Your task to perform on an android device: turn on priority inbox in the gmail app Image 0: 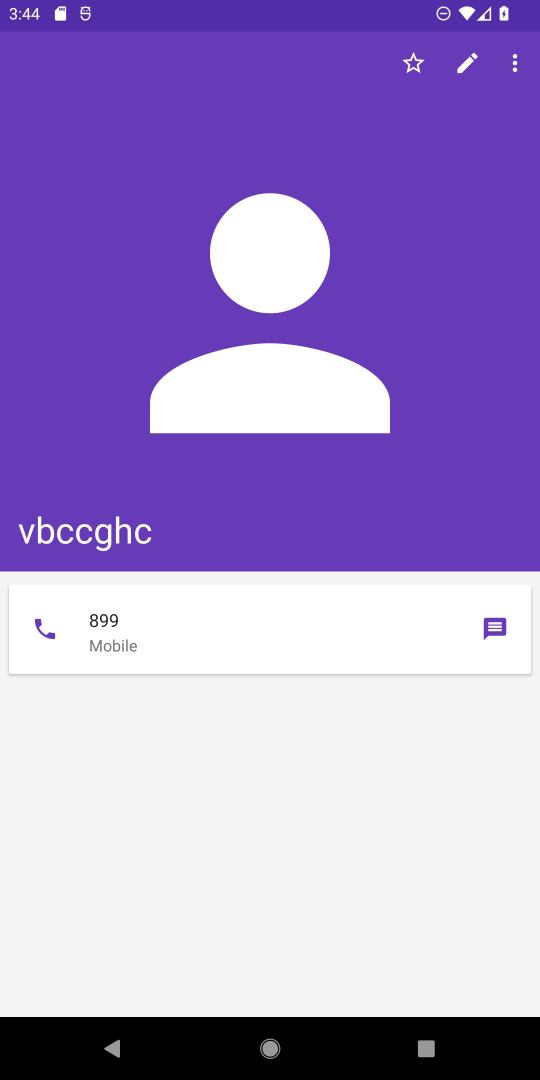
Step 0: press home button
Your task to perform on an android device: turn on priority inbox in the gmail app Image 1: 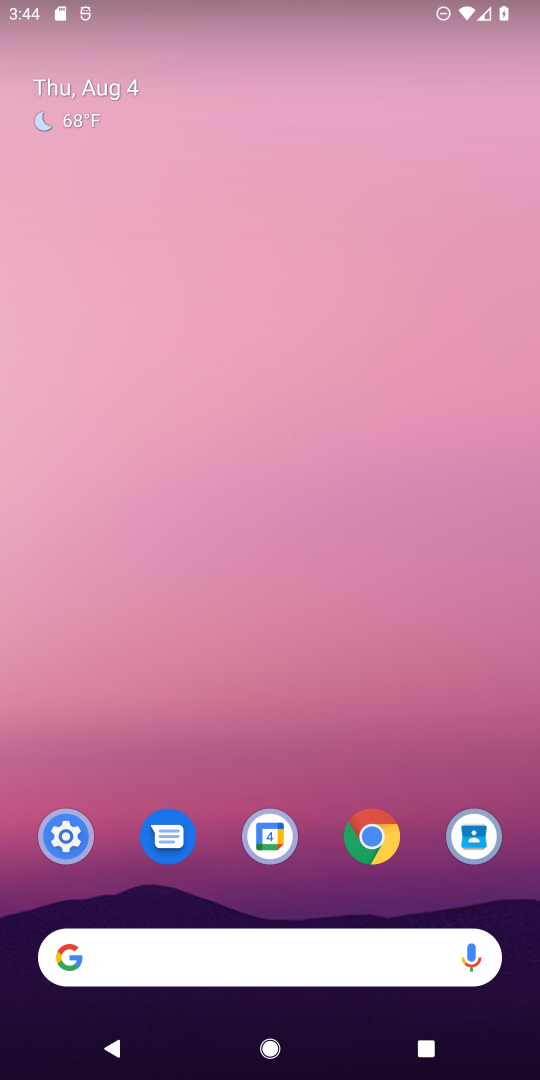
Step 1: drag from (201, 1011) to (393, 68)
Your task to perform on an android device: turn on priority inbox in the gmail app Image 2: 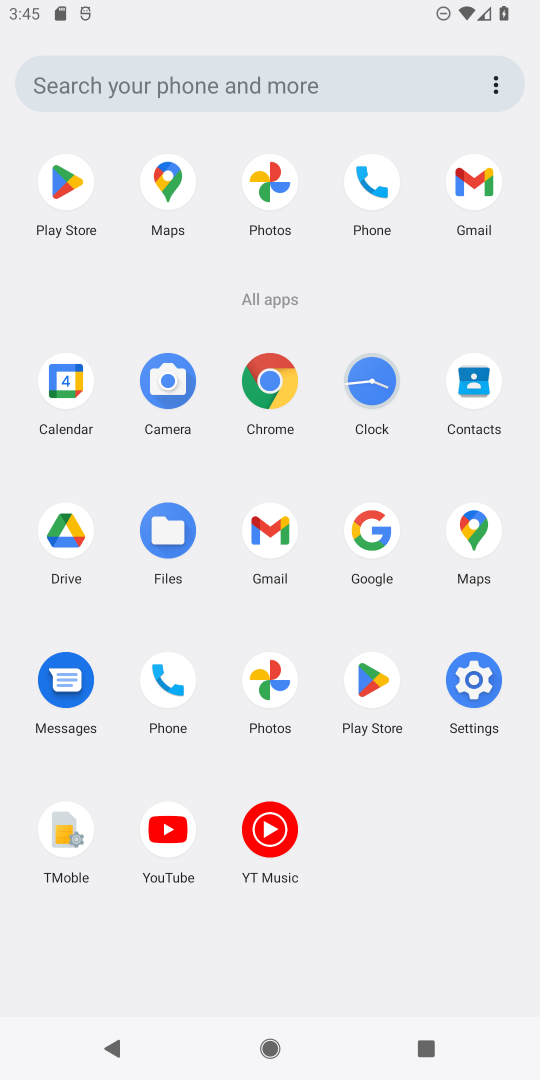
Step 2: click (476, 201)
Your task to perform on an android device: turn on priority inbox in the gmail app Image 3: 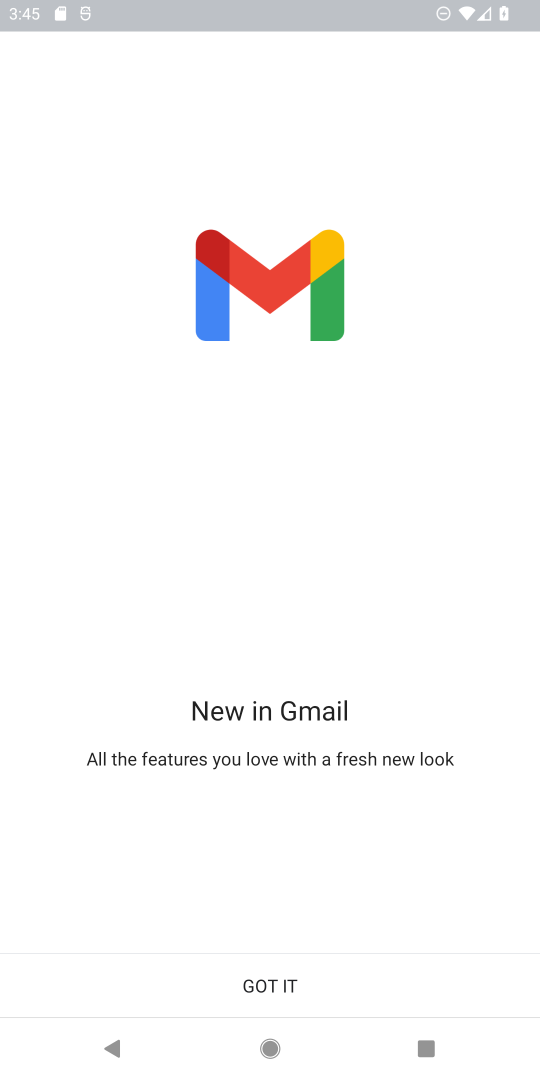
Step 3: click (287, 973)
Your task to perform on an android device: turn on priority inbox in the gmail app Image 4: 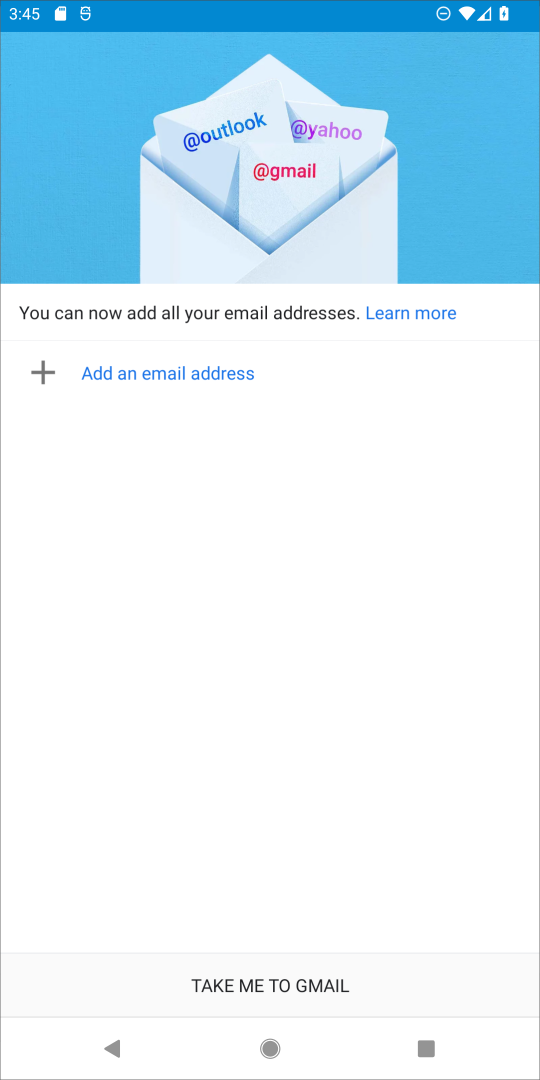
Step 4: click (287, 973)
Your task to perform on an android device: turn on priority inbox in the gmail app Image 5: 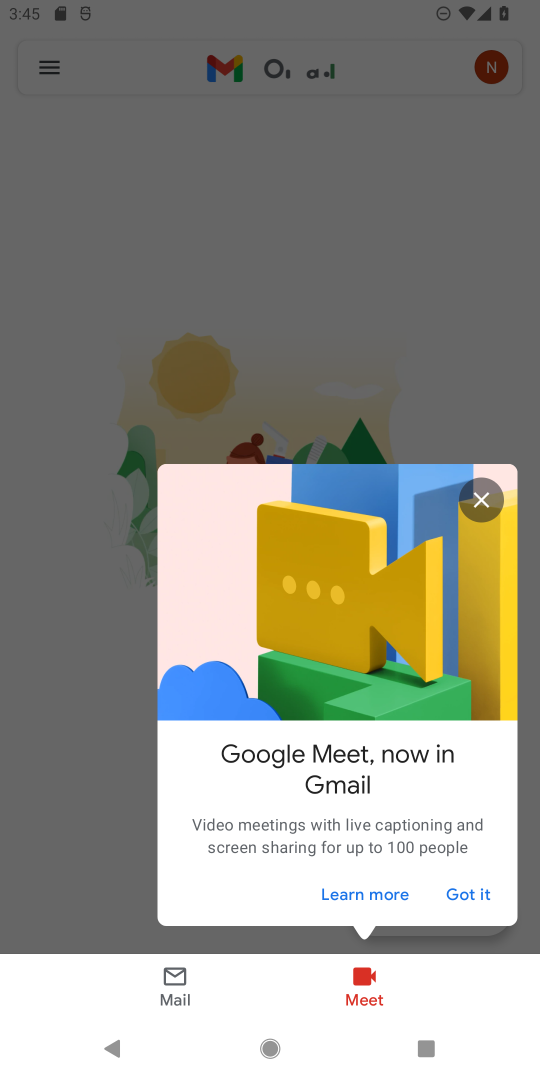
Step 5: click (343, 267)
Your task to perform on an android device: turn on priority inbox in the gmail app Image 6: 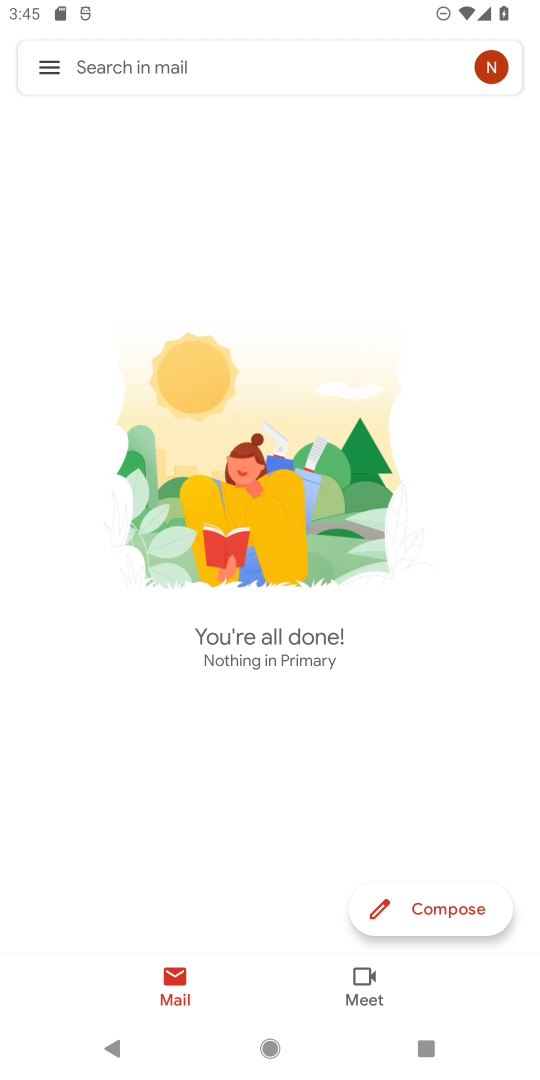
Step 6: click (53, 84)
Your task to perform on an android device: turn on priority inbox in the gmail app Image 7: 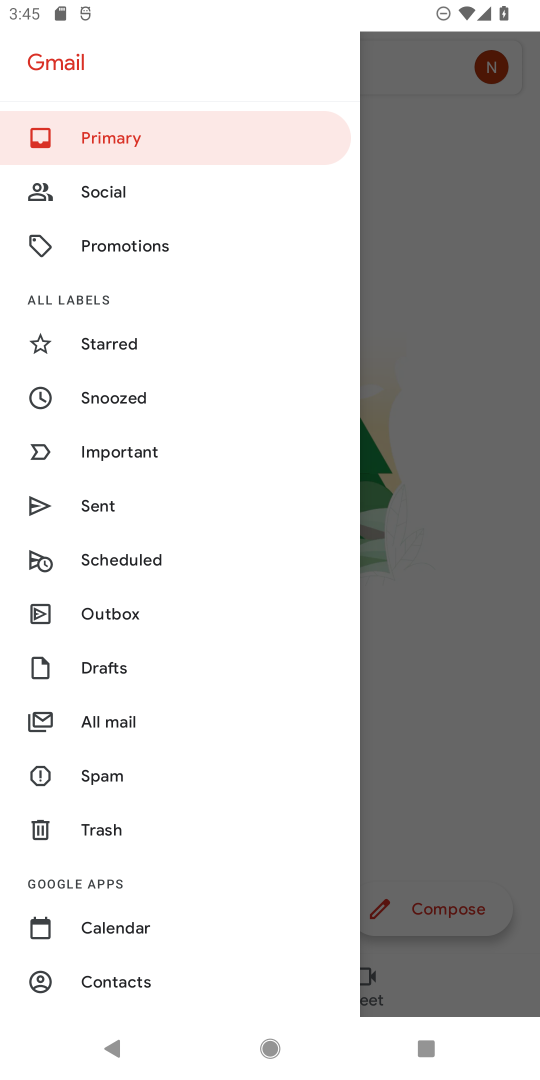
Step 7: drag from (183, 831) to (373, 93)
Your task to perform on an android device: turn on priority inbox in the gmail app Image 8: 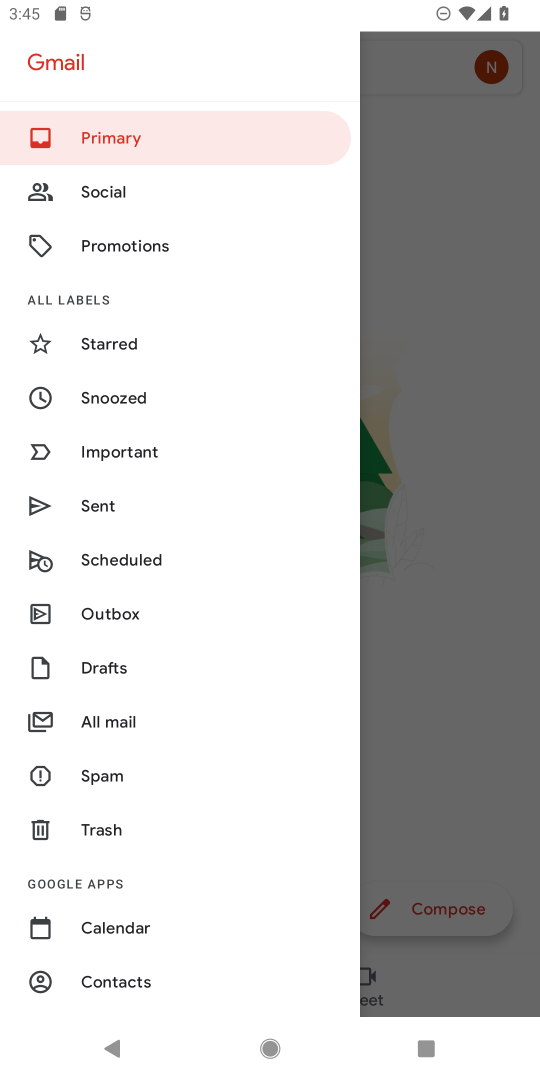
Step 8: drag from (151, 955) to (517, 297)
Your task to perform on an android device: turn on priority inbox in the gmail app Image 9: 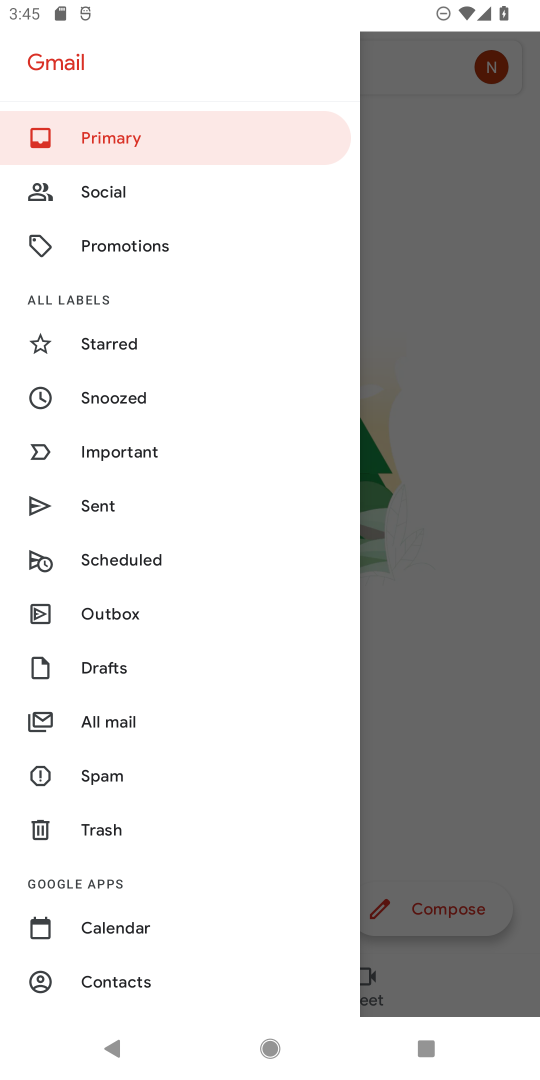
Step 9: drag from (117, 954) to (246, 11)
Your task to perform on an android device: turn on priority inbox in the gmail app Image 10: 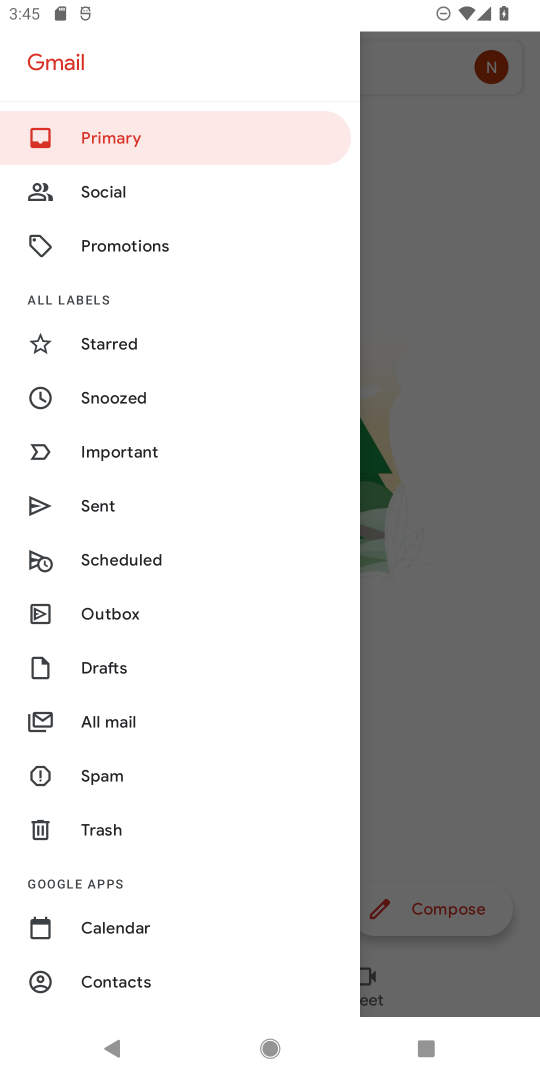
Step 10: drag from (86, 989) to (88, 11)
Your task to perform on an android device: turn on priority inbox in the gmail app Image 11: 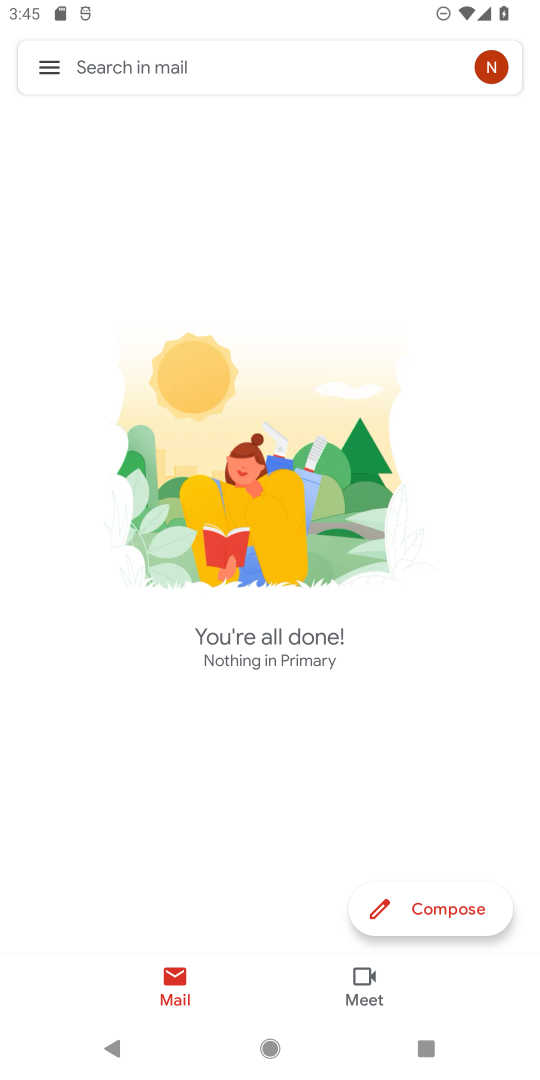
Step 11: click (30, 64)
Your task to perform on an android device: turn on priority inbox in the gmail app Image 12: 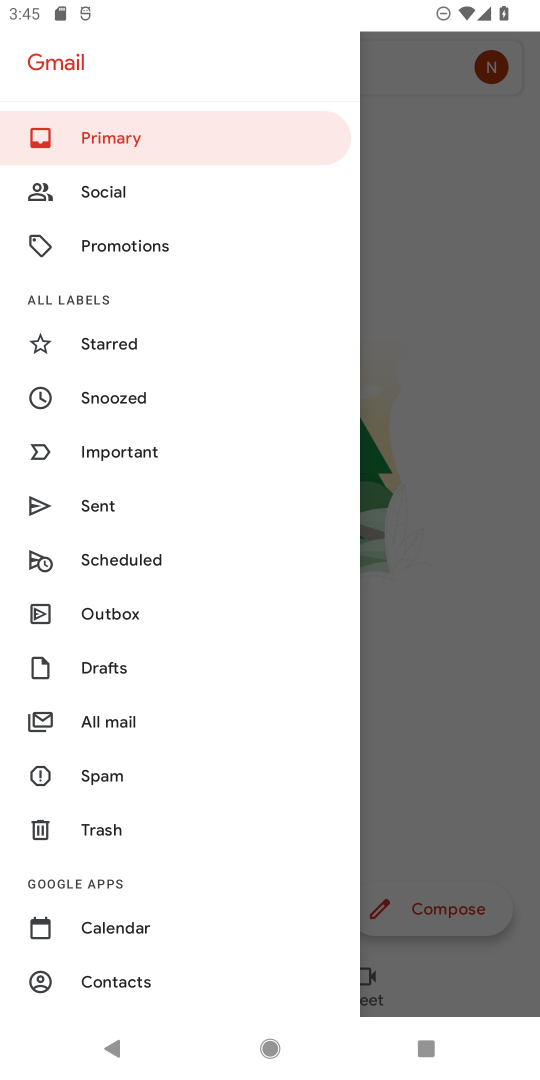
Step 12: drag from (242, 935) to (299, 0)
Your task to perform on an android device: turn on priority inbox in the gmail app Image 13: 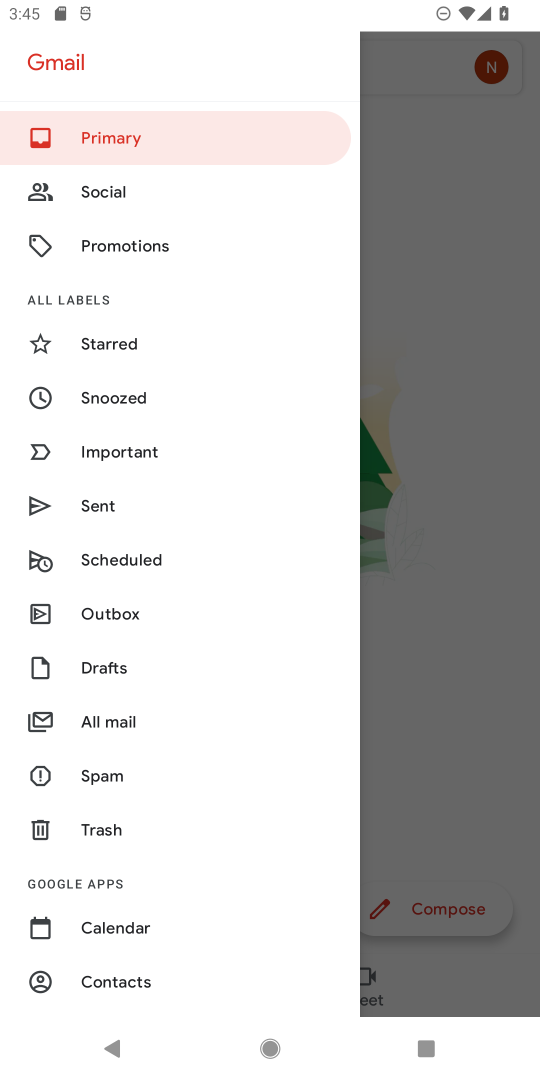
Step 13: drag from (174, 924) to (24, 34)
Your task to perform on an android device: turn on priority inbox in the gmail app Image 14: 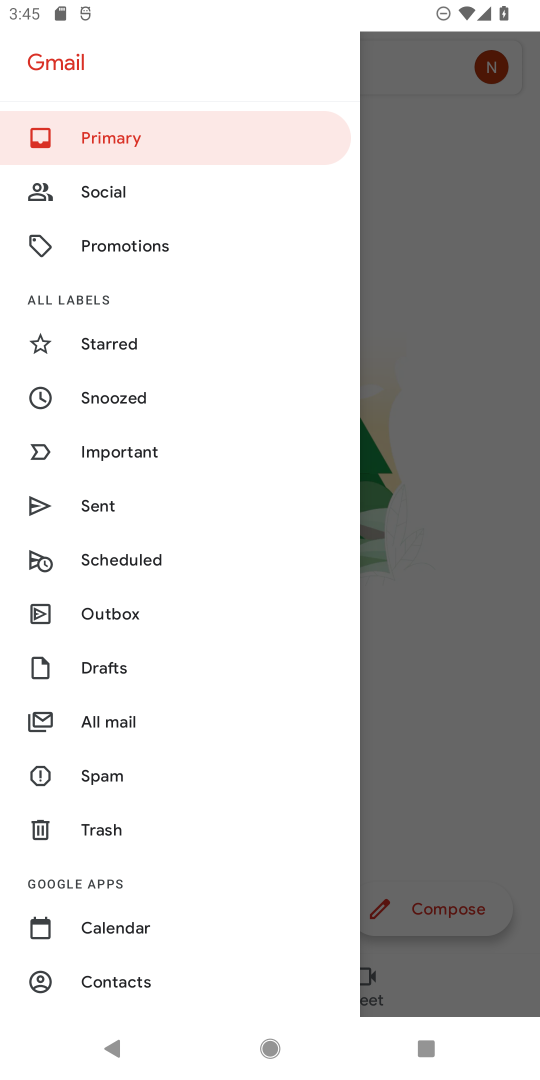
Step 14: drag from (167, 895) to (190, 36)
Your task to perform on an android device: turn on priority inbox in the gmail app Image 15: 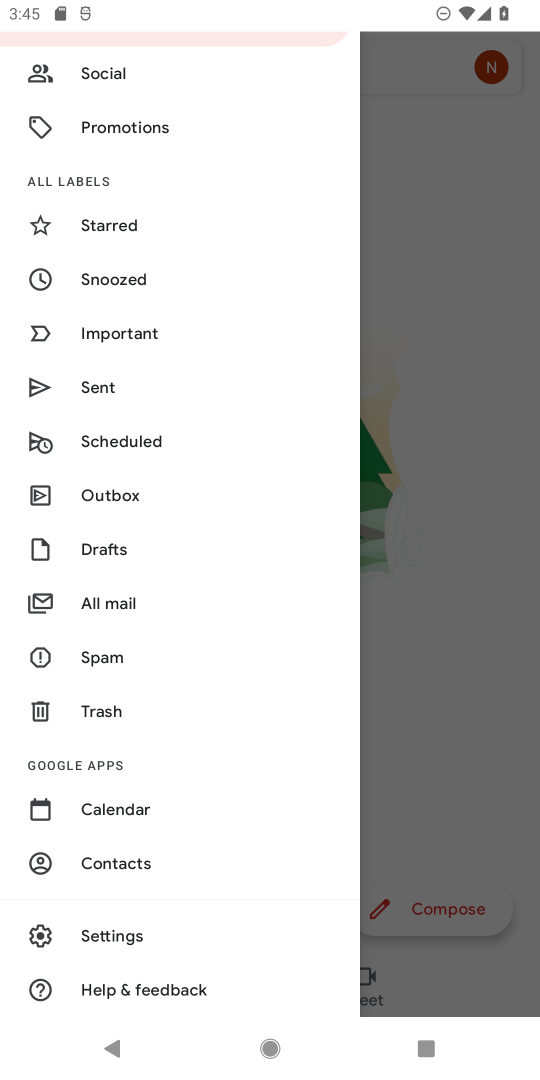
Step 15: drag from (97, 970) to (325, 17)
Your task to perform on an android device: turn on priority inbox in the gmail app Image 16: 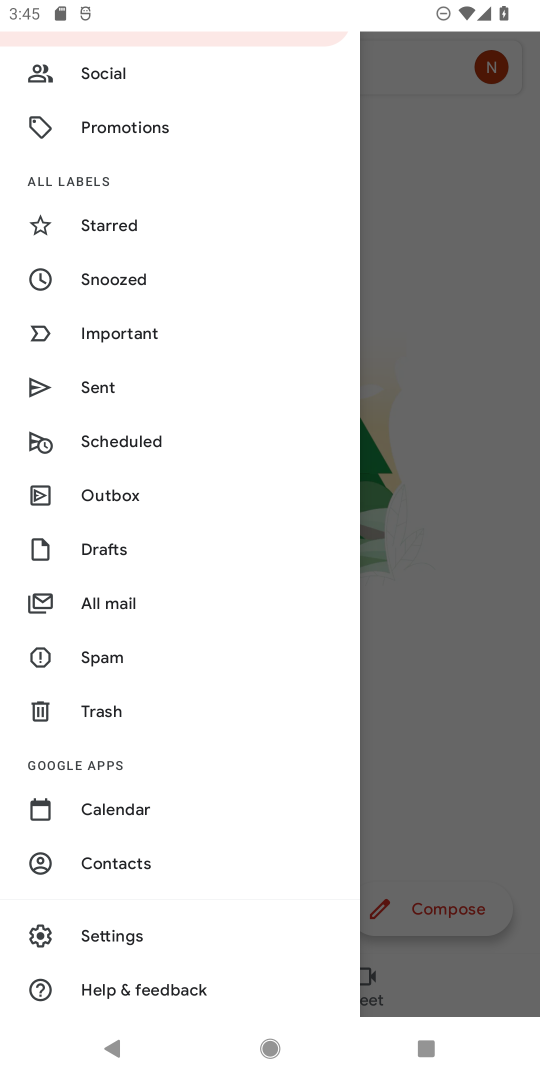
Step 16: click (105, 933)
Your task to perform on an android device: turn on priority inbox in the gmail app Image 17: 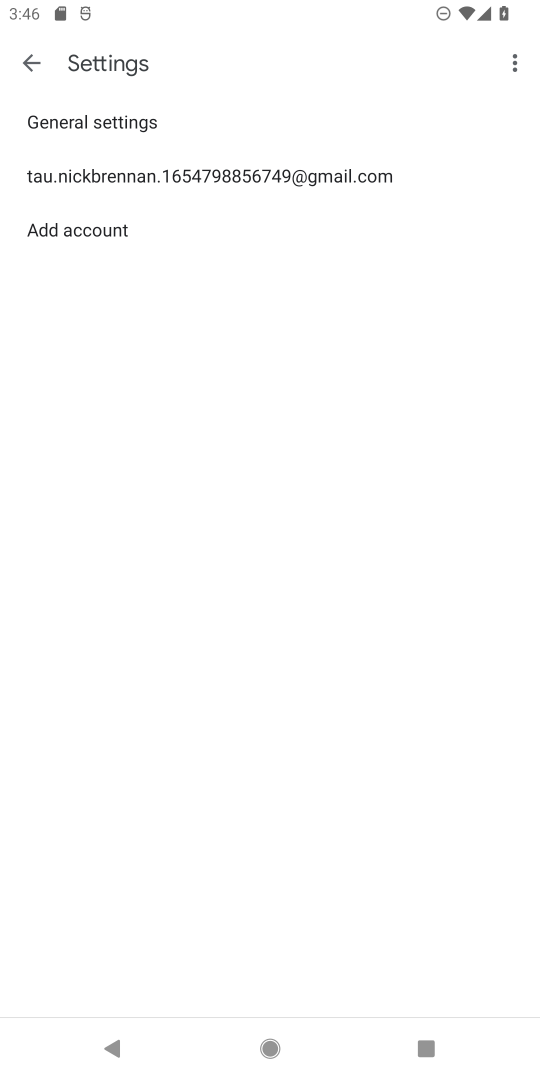
Step 17: click (300, 166)
Your task to perform on an android device: turn on priority inbox in the gmail app Image 18: 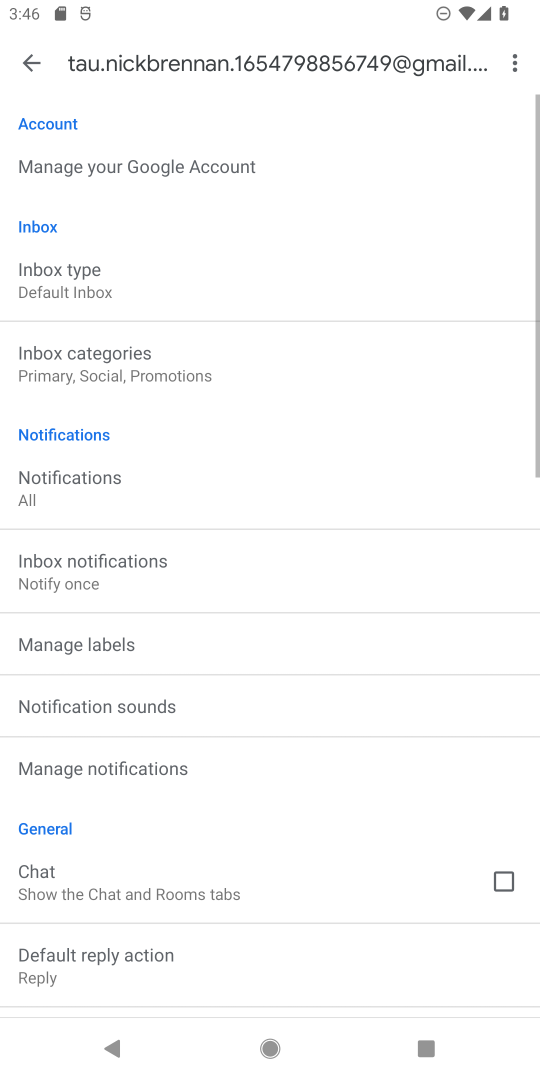
Step 18: click (59, 273)
Your task to perform on an android device: turn on priority inbox in the gmail app Image 19: 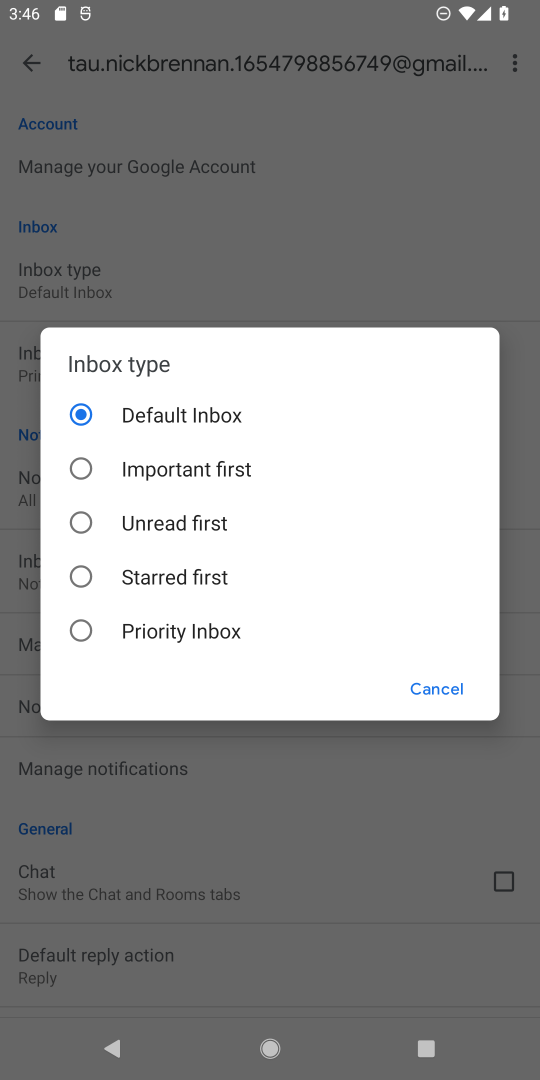
Step 19: click (200, 622)
Your task to perform on an android device: turn on priority inbox in the gmail app Image 20: 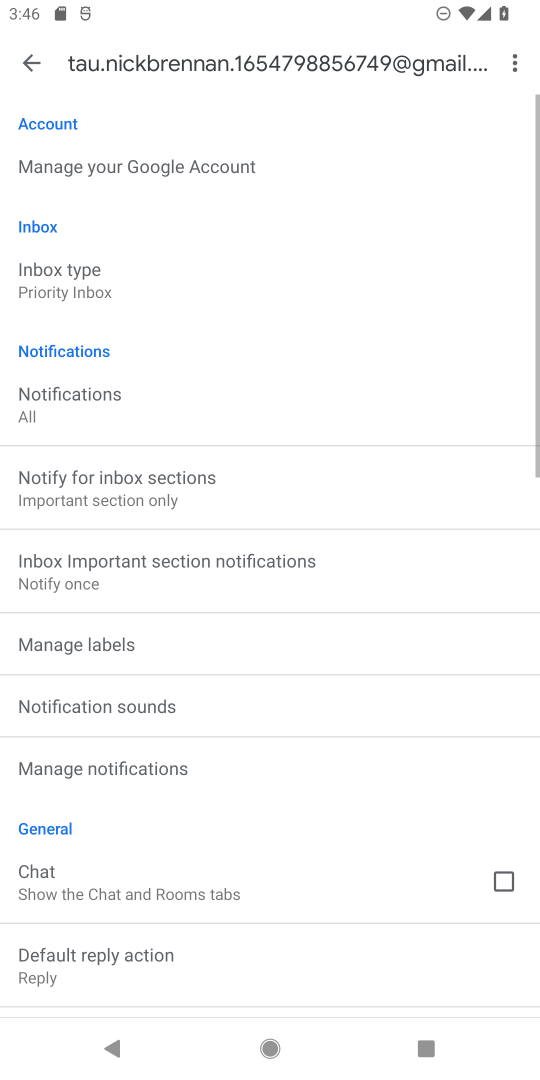
Step 20: task complete